Your task to perform on an android device: check battery use Image 0: 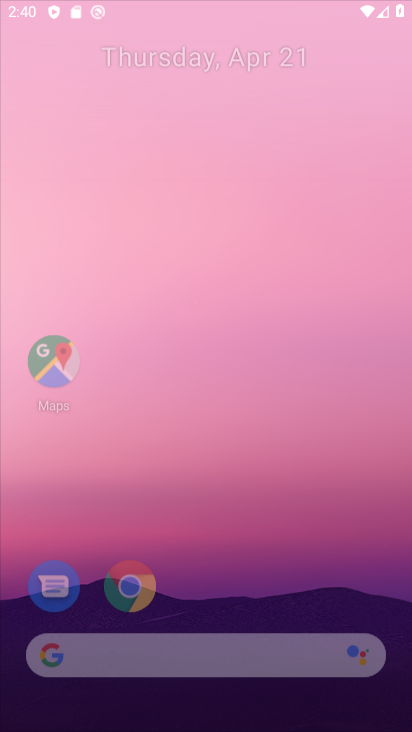
Step 0: drag from (269, 305) to (303, 182)
Your task to perform on an android device: check battery use Image 1: 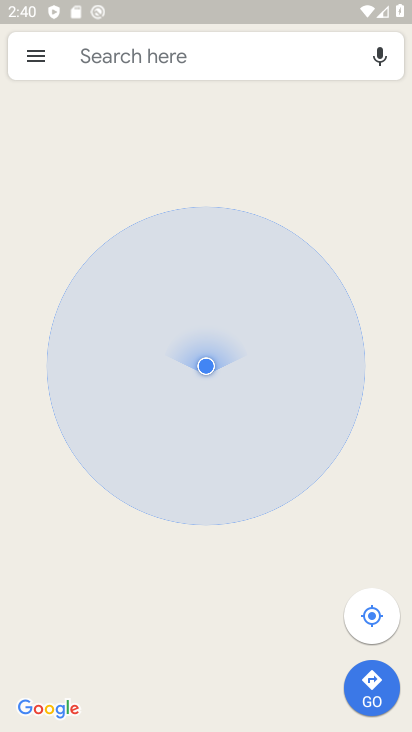
Step 1: press home button
Your task to perform on an android device: check battery use Image 2: 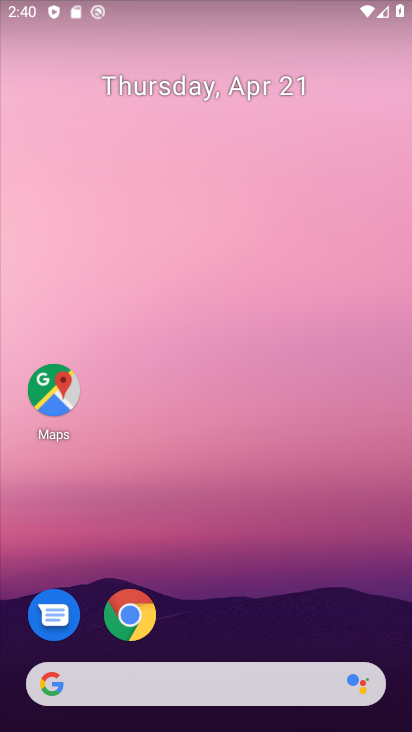
Step 2: drag from (207, 668) to (378, 161)
Your task to perform on an android device: check battery use Image 3: 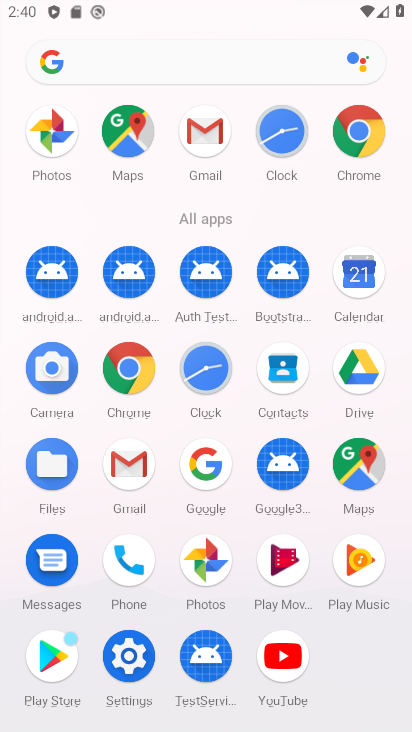
Step 3: click (125, 660)
Your task to perform on an android device: check battery use Image 4: 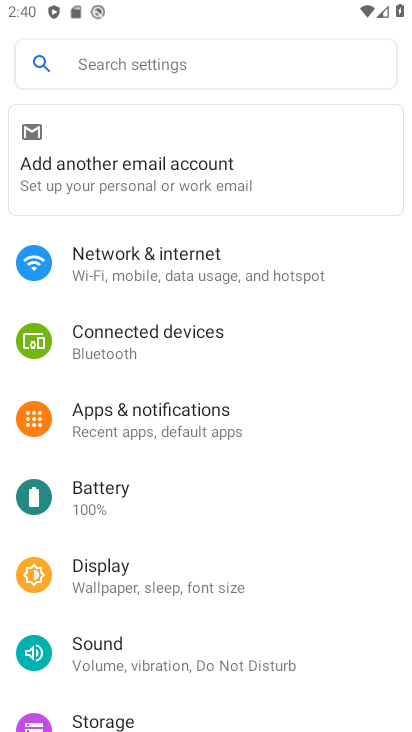
Step 4: click (106, 501)
Your task to perform on an android device: check battery use Image 5: 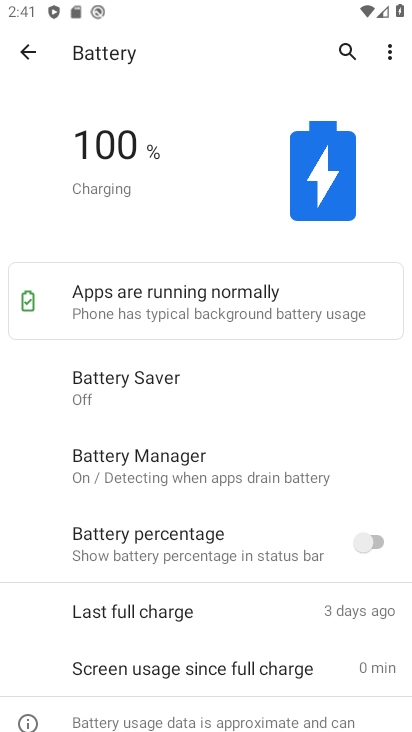
Step 5: click (392, 48)
Your task to perform on an android device: check battery use Image 6: 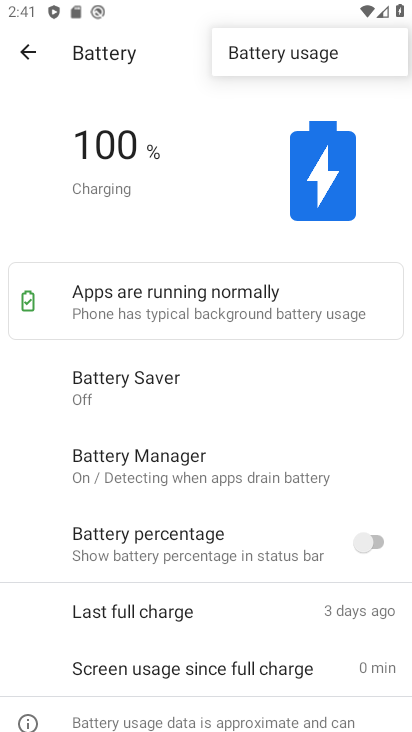
Step 6: click (329, 56)
Your task to perform on an android device: check battery use Image 7: 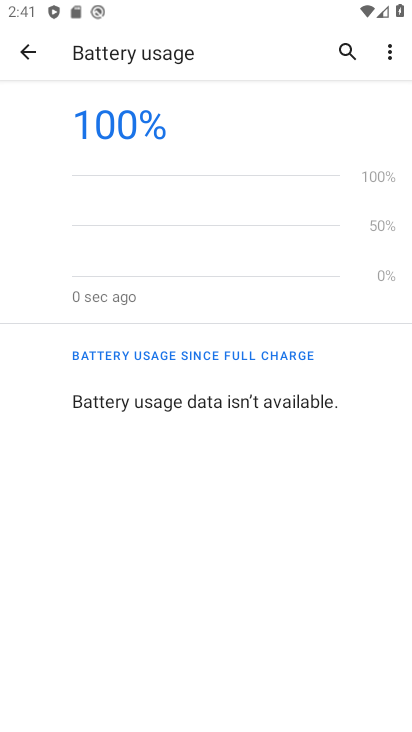
Step 7: task complete